Your task to perform on an android device: open app "Venmo" (install if not already installed) Image 0: 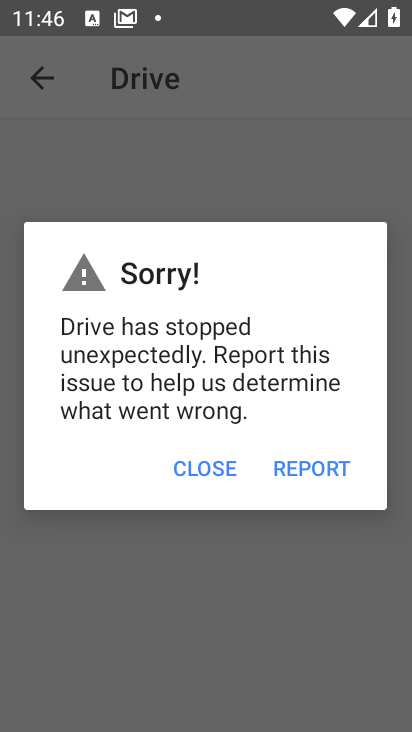
Step 0: press home button
Your task to perform on an android device: open app "Venmo" (install if not already installed) Image 1: 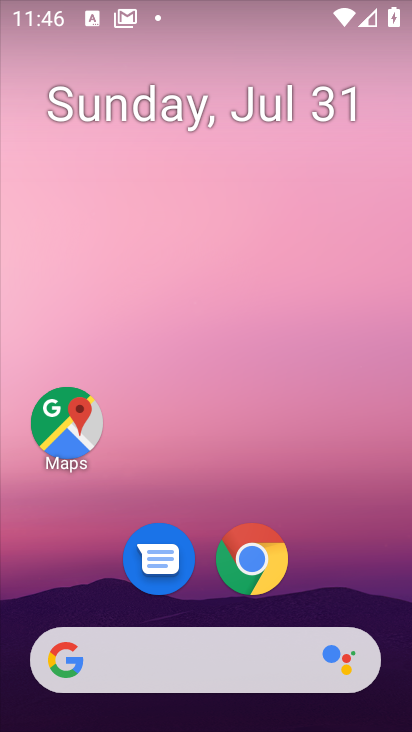
Step 1: drag from (77, 592) to (203, 39)
Your task to perform on an android device: open app "Venmo" (install if not already installed) Image 2: 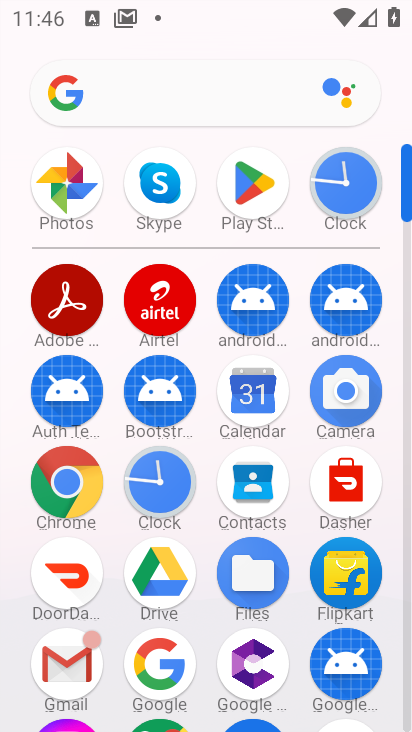
Step 2: click (236, 175)
Your task to perform on an android device: open app "Venmo" (install if not already installed) Image 3: 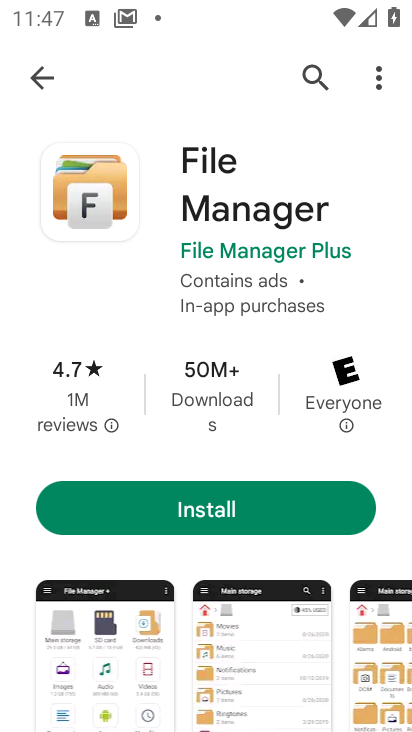
Step 3: click (314, 66)
Your task to perform on an android device: open app "Venmo" (install if not already installed) Image 4: 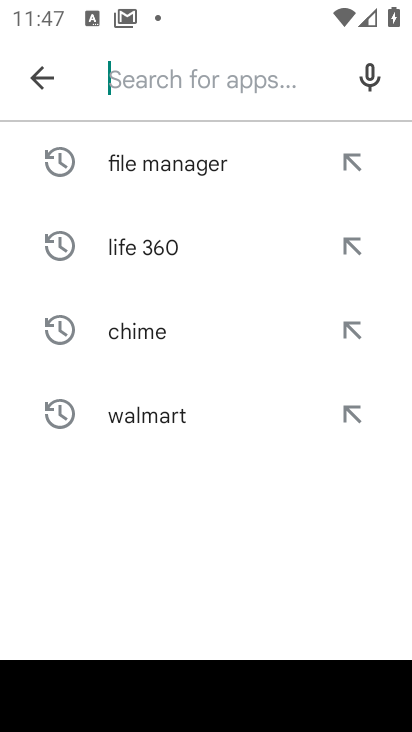
Step 4: click (207, 72)
Your task to perform on an android device: open app "Venmo" (install if not already installed) Image 5: 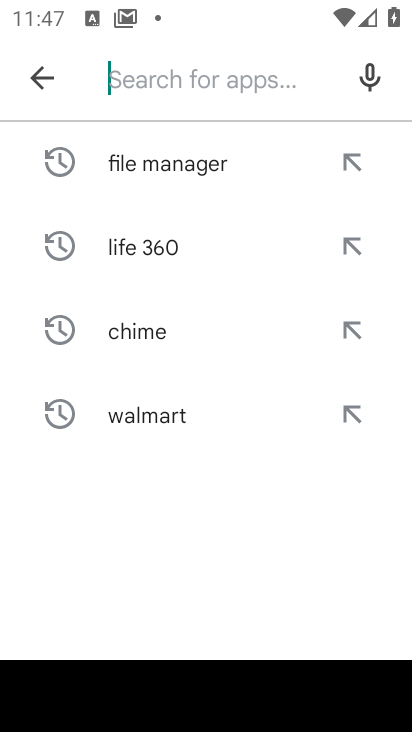
Step 5: type ""
Your task to perform on an android device: open app "Venmo" (install if not already installed) Image 6: 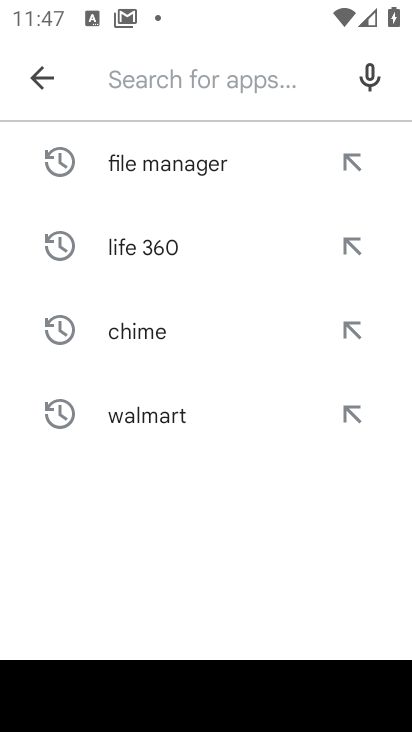
Step 6: type "venmo"
Your task to perform on an android device: open app "Venmo" (install if not already installed) Image 7: 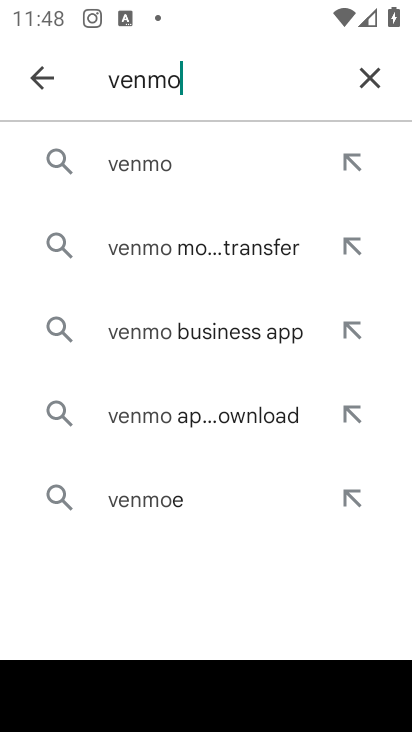
Step 7: click (128, 178)
Your task to perform on an android device: open app "Venmo" (install if not already installed) Image 8: 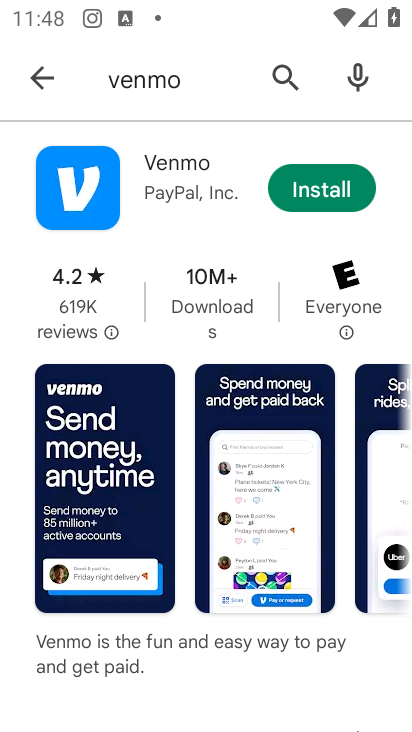
Step 8: click (305, 188)
Your task to perform on an android device: open app "Venmo" (install if not already installed) Image 9: 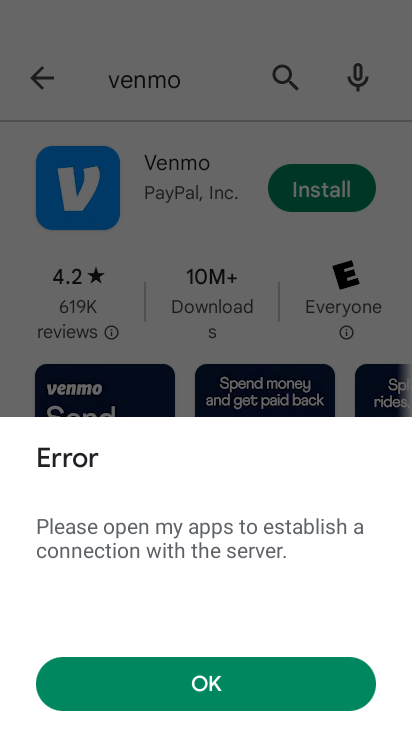
Step 9: click (218, 683)
Your task to perform on an android device: open app "Venmo" (install if not already installed) Image 10: 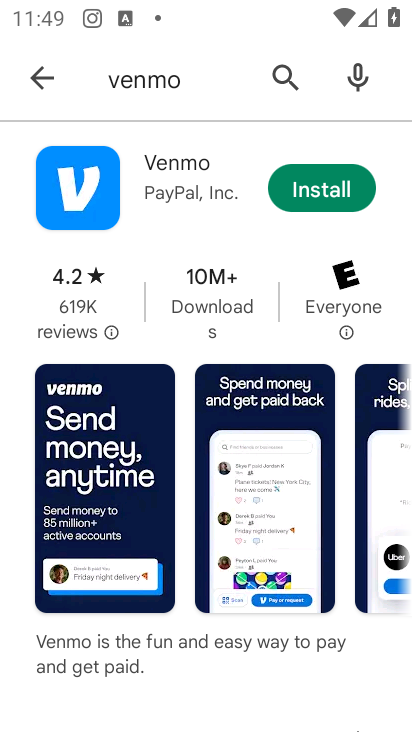
Step 10: task complete